Your task to perform on an android device: Open Amazon Image 0: 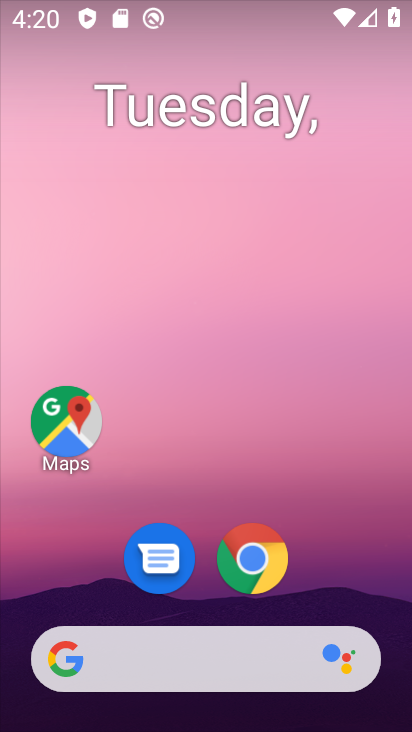
Step 0: click (278, 572)
Your task to perform on an android device: Open Amazon Image 1: 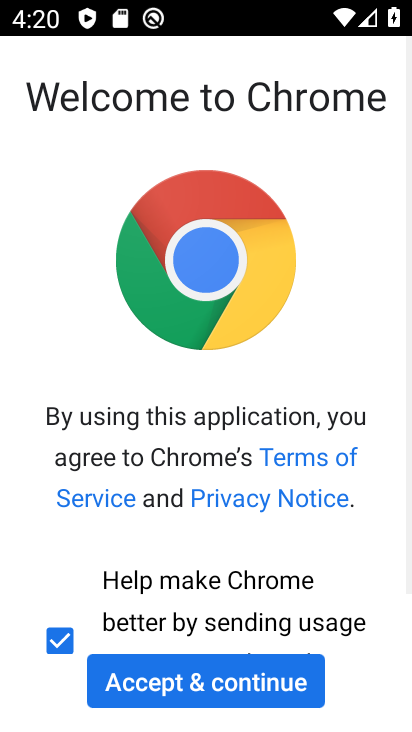
Step 1: click (112, 704)
Your task to perform on an android device: Open Amazon Image 2: 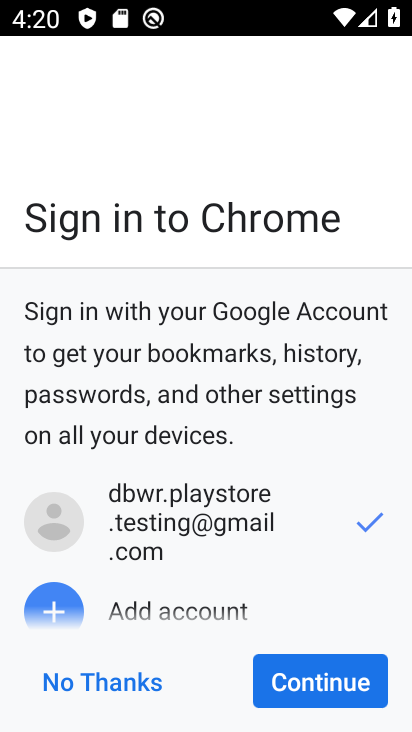
Step 2: click (308, 694)
Your task to perform on an android device: Open Amazon Image 3: 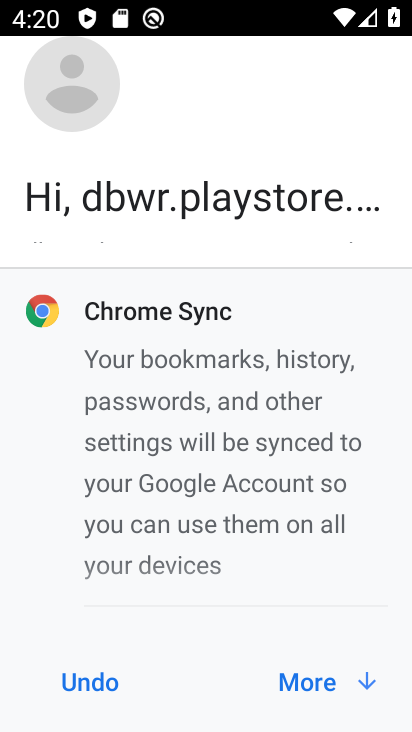
Step 3: click (306, 693)
Your task to perform on an android device: Open Amazon Image 4: 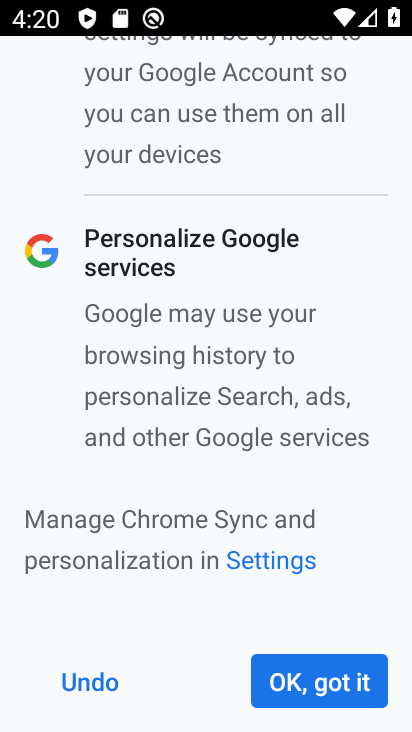
Step 4: click (306, 693)
Your task to perform on an android device: Open Amazon Image 5: 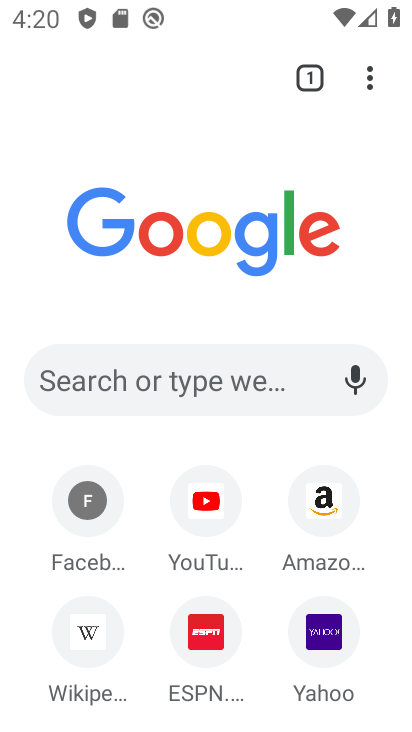
Step 5: click (314, 535)
Your task to perform on an android device: Open Amazon Image 6: 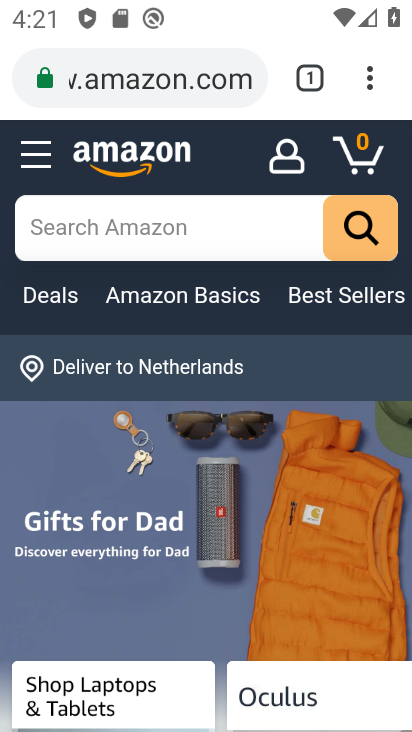
Step 6: task complete